Your task to perform on an android device: make emails show in primary in the gmail app Image 0: 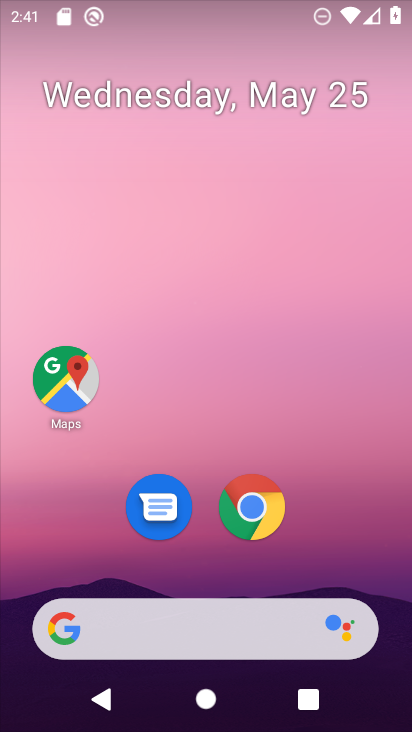
Step 0: drag from (199, 650) to (214, 204)
Your task to perform on an android device: make emails show in primary in the gmail app Image 1: 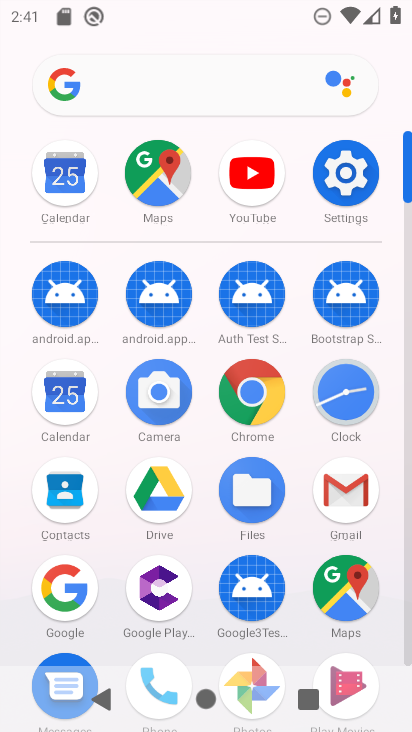
Step 1: click (347, 493)
Your task to perform on an android device: make emails show in primary in the gmail app Image 2: 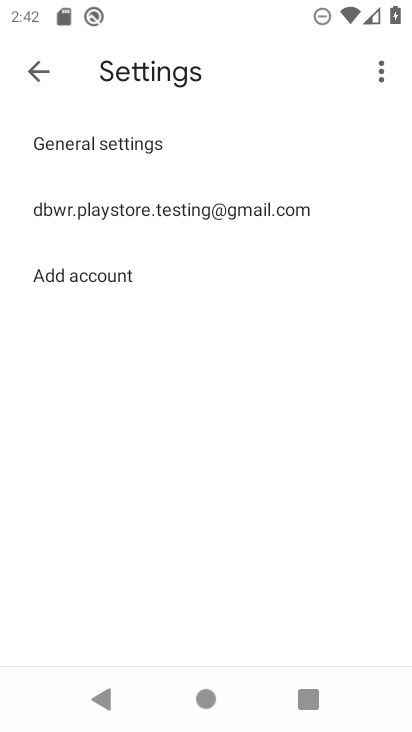
Step 2: click (96, 163)
Your task to perform on an android device: make emails show in primary in the gmail app Image 3: 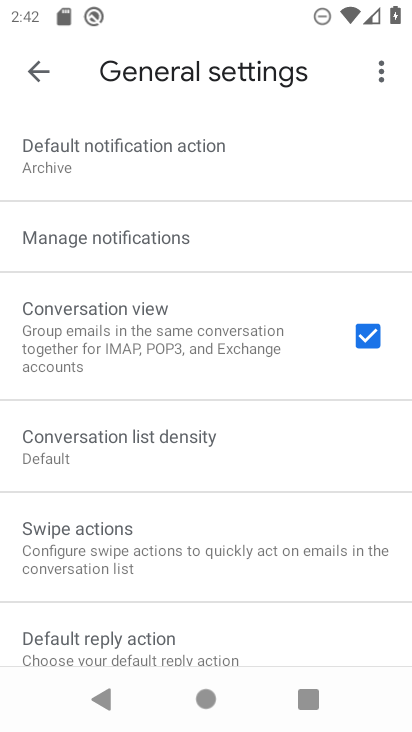
Step 3: task complete